Your task to perform on an android device: change timer sound Image 0: 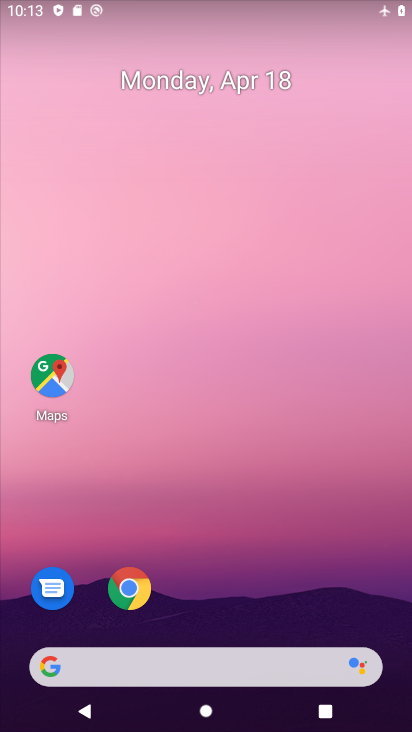
Step 0: drag from (291, 600) to (324, 10)
Your task to perform on an android device: change timer sound Image 1: 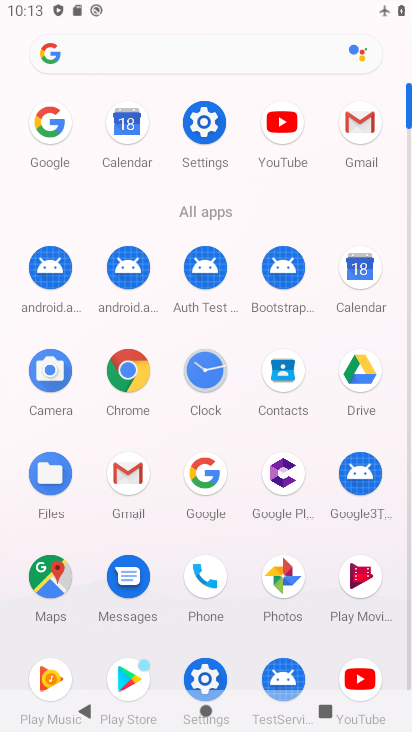
Step 1: click (199, 370)
Your task to perform on an android device: change timer sound Image 2: 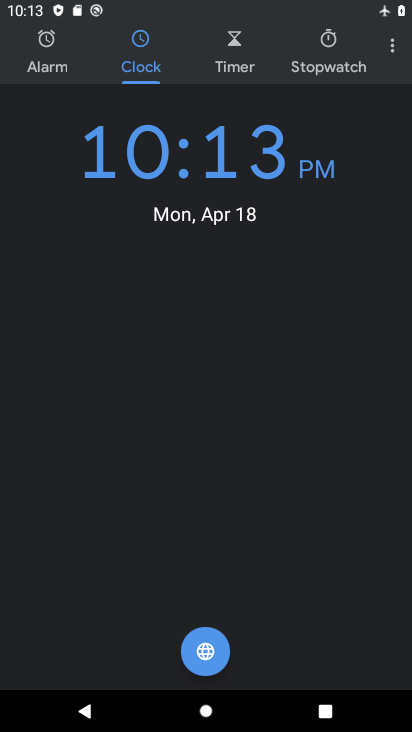
Step 2: click (390, 38)
Your task to perform on an android device: change timer sound Image 3: 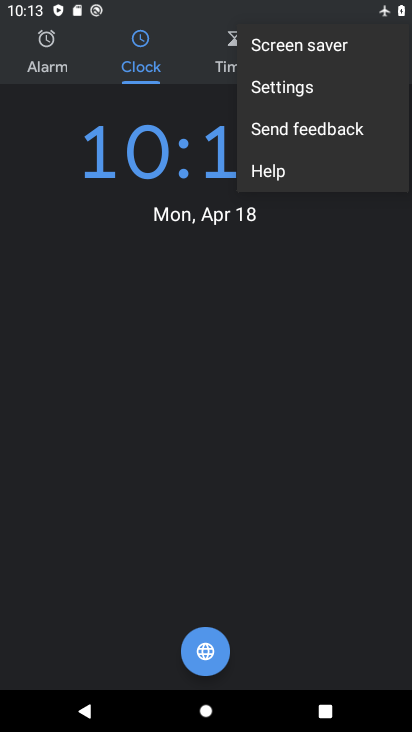
Step 3: click (316, 92)
Your task to perform on an android device: change timer sound Image 4: 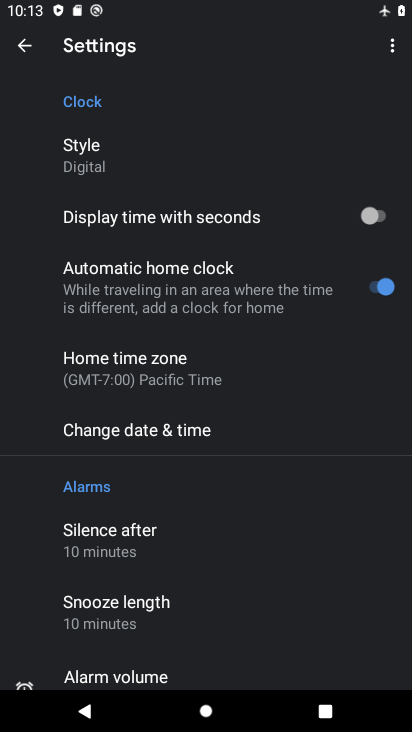
Step 4: drag from (166, 497) to (183, 397)
Your task to perform on an android device: change timer sound Image 5: 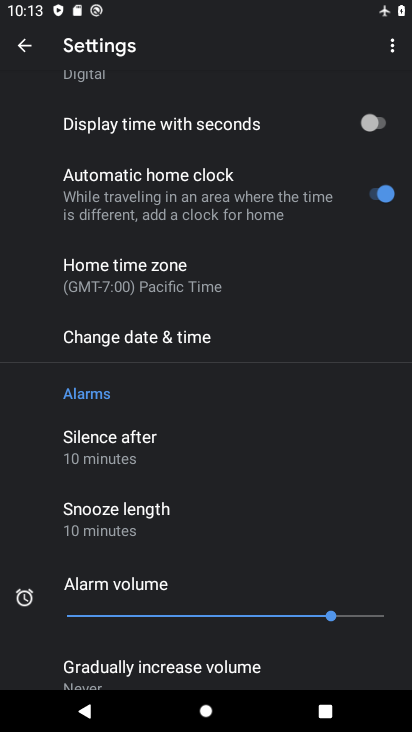
Step 5: drag from (184, 534) to (180, 427)
Your task to perform on an android device: change timer sound Image 6: 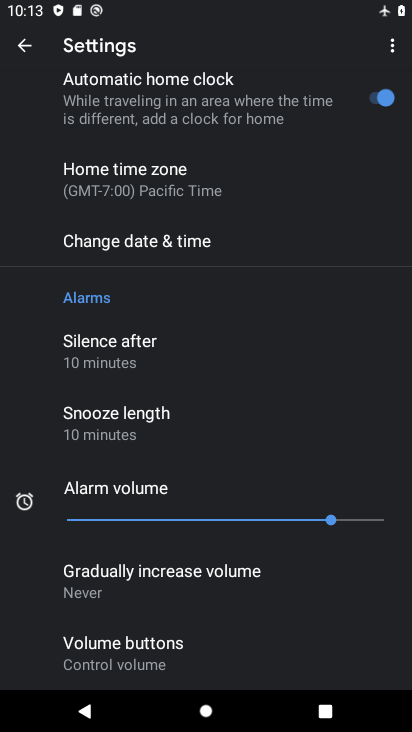
Step 6: drag from (184, 569) to (185, 487)
Your task to perform on an android device: change timer sound Image 7: 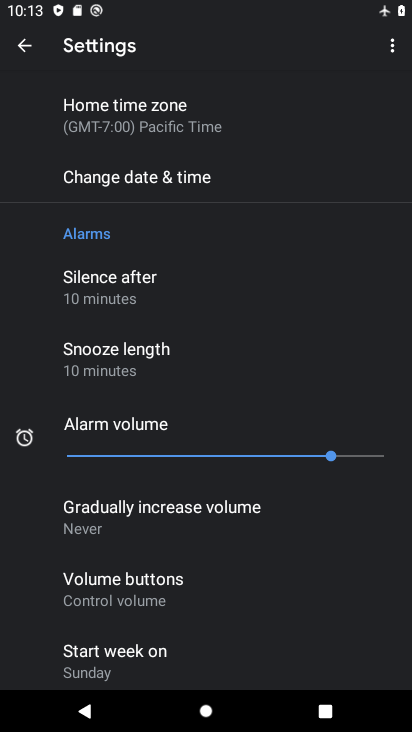
Step 7: drag from (185, 556) to (175, 472)
Your task to perform on an android device: change timer sound Image 8: 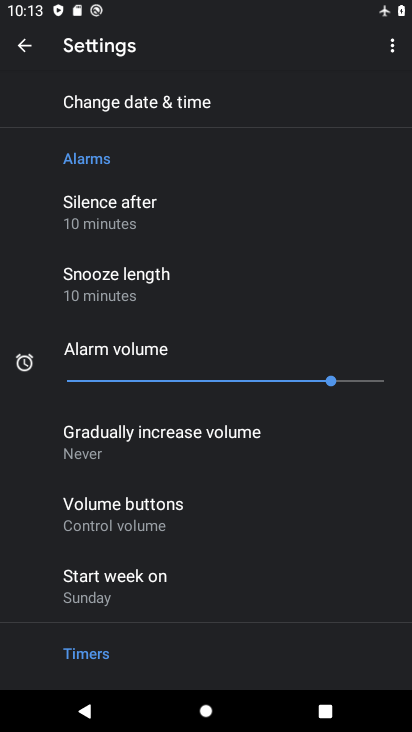
Step 8: drag from (162, 517) to (167, 434)
Your task to perform on an android device: change timer sound Image 9: 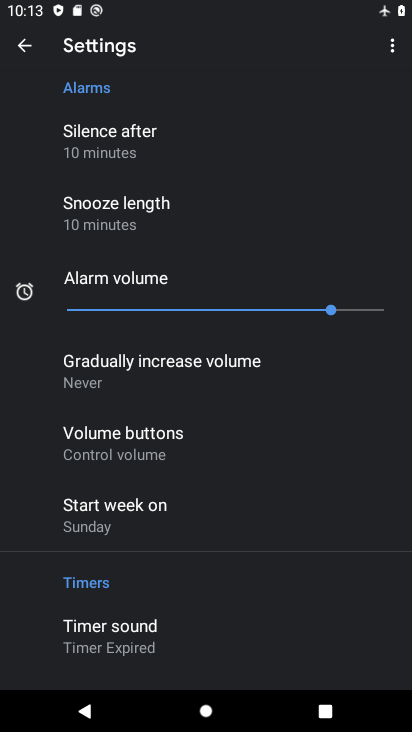
Step 9: drag from (143, 498) to (145, 444)
Your task to perform on an android device: change timer sound Image 10: 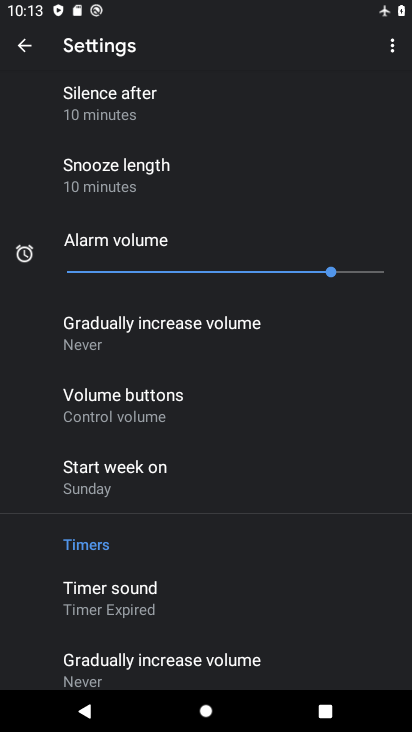
Step 10: drag from (148, 485) to (168, 406)
Your task to perform on an android device: change timer sound Image 11: 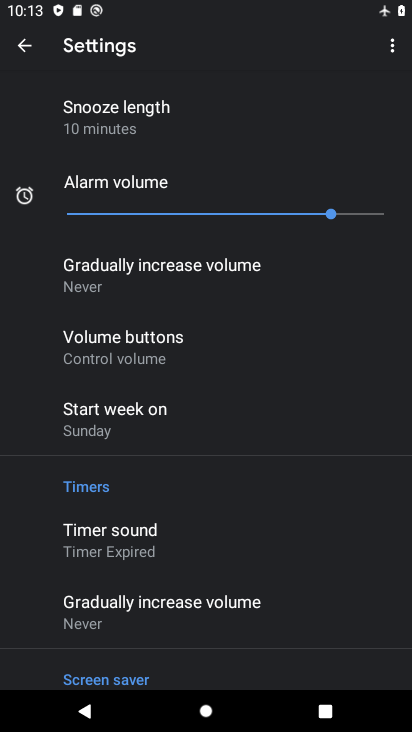
Step 11: click (131, 524)
Your task to perform on an android device: change timer sound Image 12: 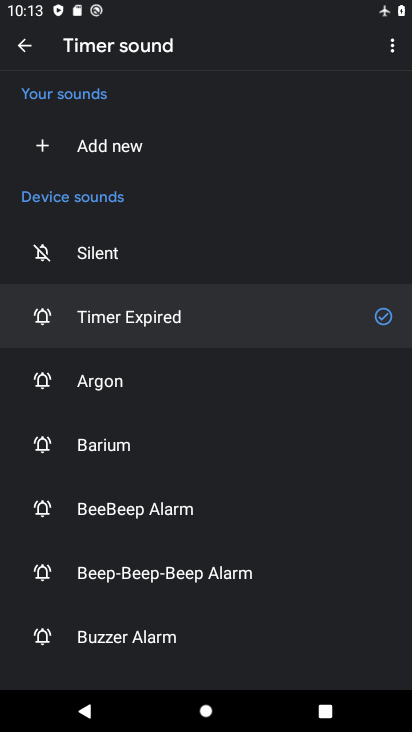
Step 12: click (135, 386)
Your task to perform on an android device: change timer sound Image 13: 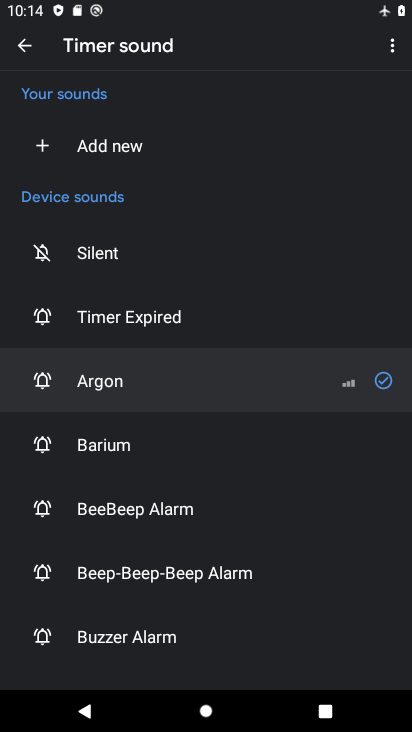
Step 13: task complete